Your task to perform on an android device: add a contact Image 0: 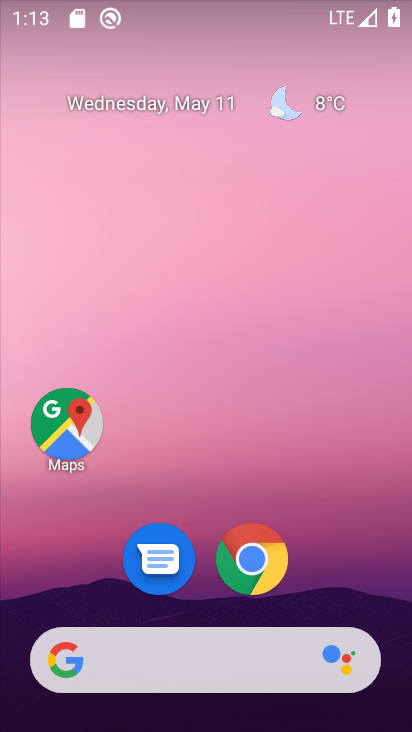
Step 0: drag from (208, 724) to (233, 273)
Your task to perform on an android device: add a contact Image 1: 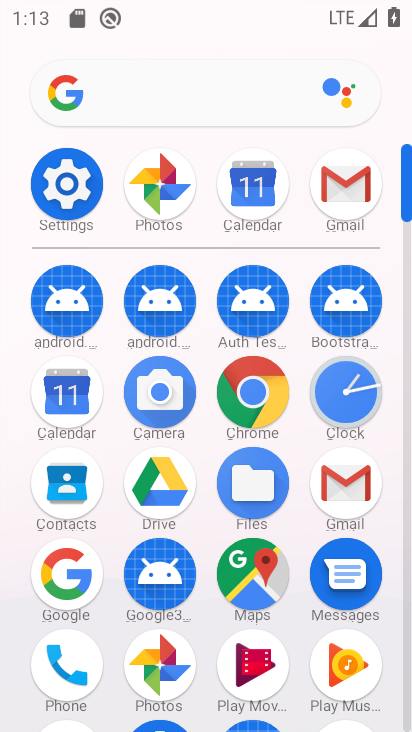
Step 1: click (63, 494)
Your task to perform on an android device: add a contact Image 2: 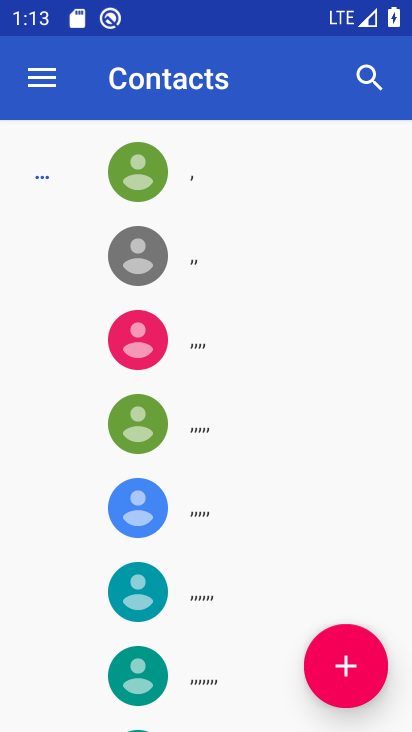
Step 2: click (340, 666)
Your task to perform on an android device: add a contact Image 3: 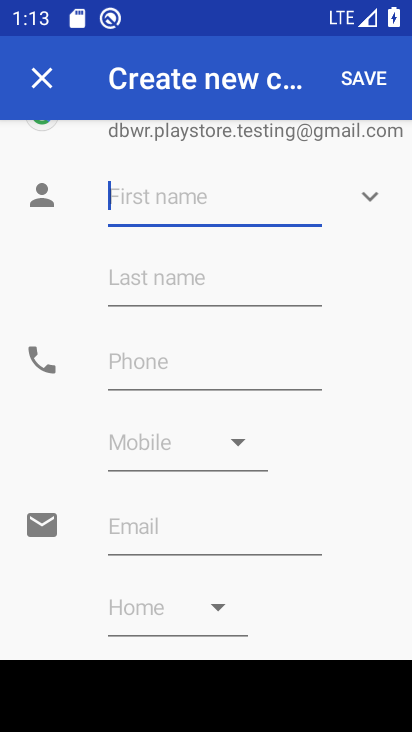
Step 3: type "land lord"
Your task to perform on an android device: add a contact Image 4: 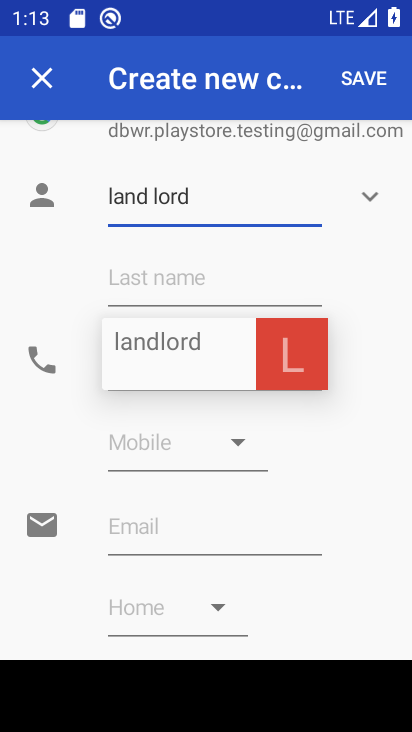
Step 4: click (182, 362)
Your task to perform on an android device: add a contact Image 5: 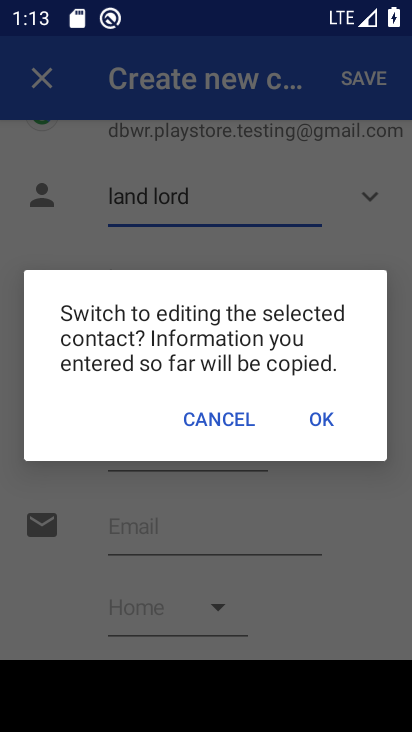
Step 5: click (236, 409)
Your task to perform on an android device: add a contact Image 6: 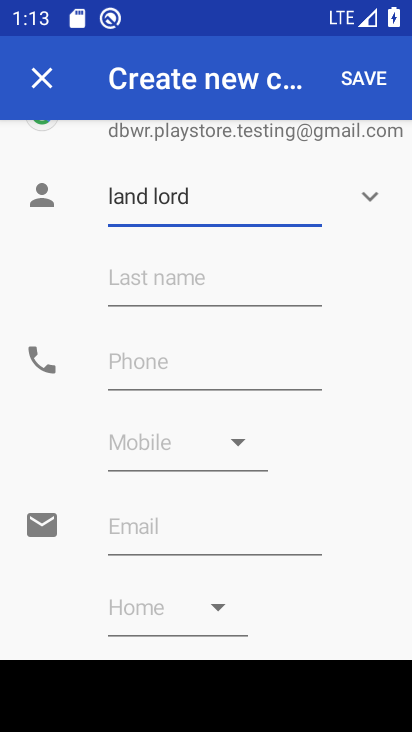
Step 6: type "s"
Your task to perform on an android device: add a contact Image 7: 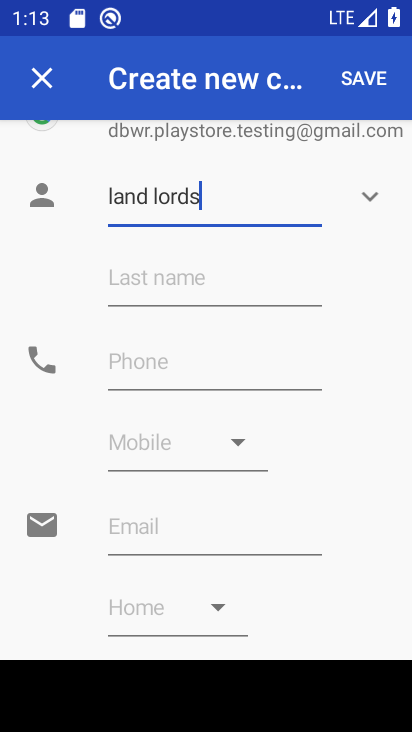
Step 7: click (144, 372)
Your task to perform on an android device: add a contact Image 8: 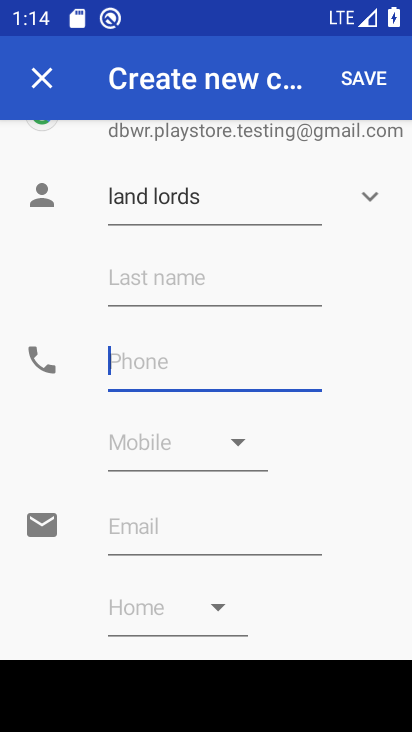
Step 8: type "98765"
Your task to perform on an android device: add a contact Image 9: 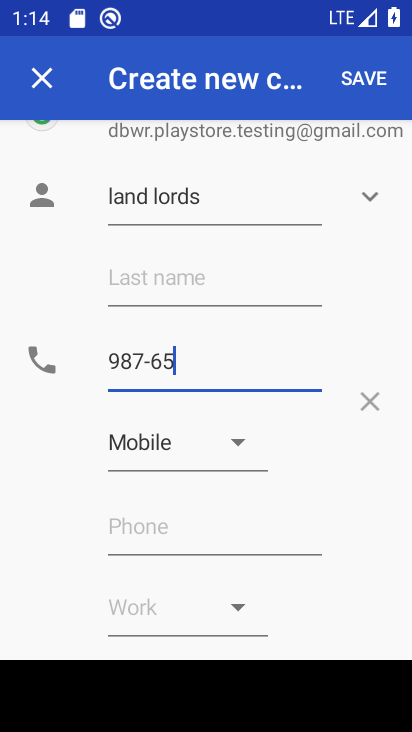
Step 9: click (356, 80)
Your task to perform on an android device: add a contact Image 10: 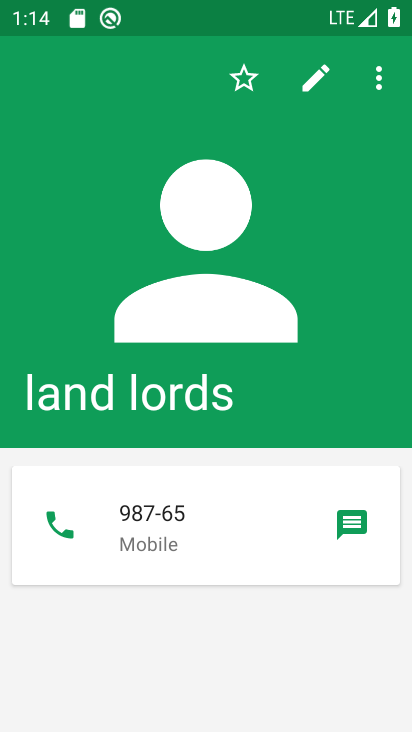
Step 10: task complete